Your task to perform on an android device: What is the news today? Image 0: 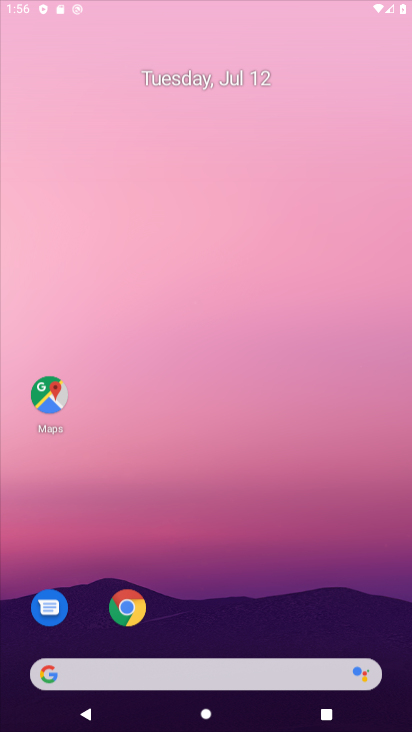
Step 0: press home button
Your task to perform on an android device: What is the news today? Image 1: 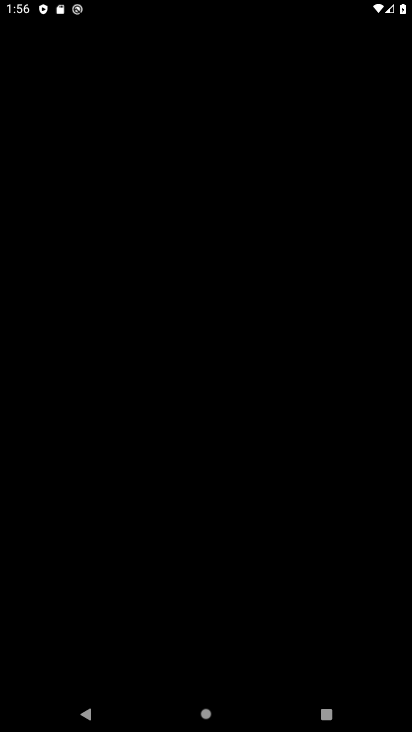
Step 1: press home button
Your task to perform on an android device: What is the news today? Image 2: 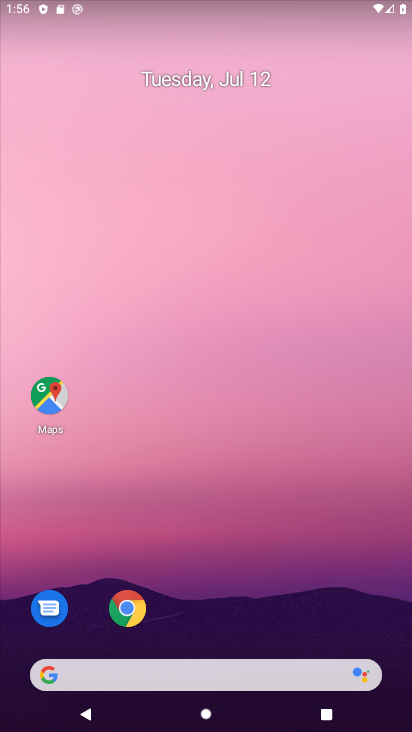
Step 2: drag from (282, 527) to (254, 19)
Your task to perform on an android device: What is the news today? Image 3: 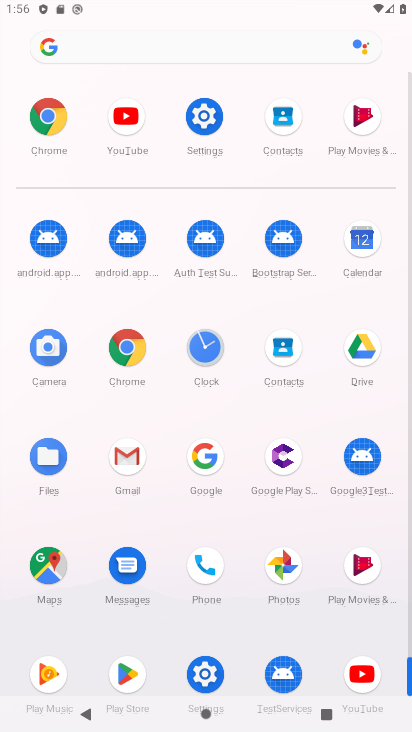
Step 3: click (125, 352)
Your task to perform on an android device: What is the news today? Image 4: 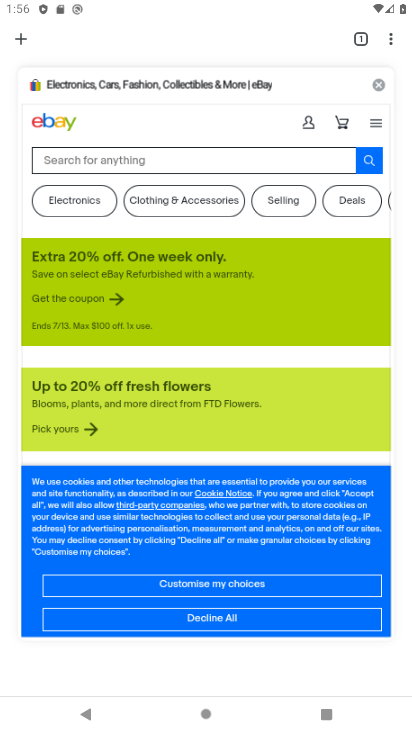
Step 4: drag from (189, 112) to (212, 416)
Your task to perform on an android device: What is the news today? Image 5: 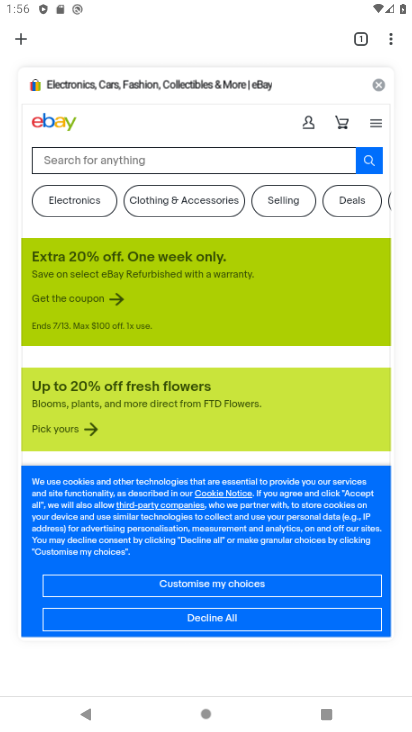
Step 5: click (309, 39)
Your task to perform on an android device: What is the news today? Image 6: 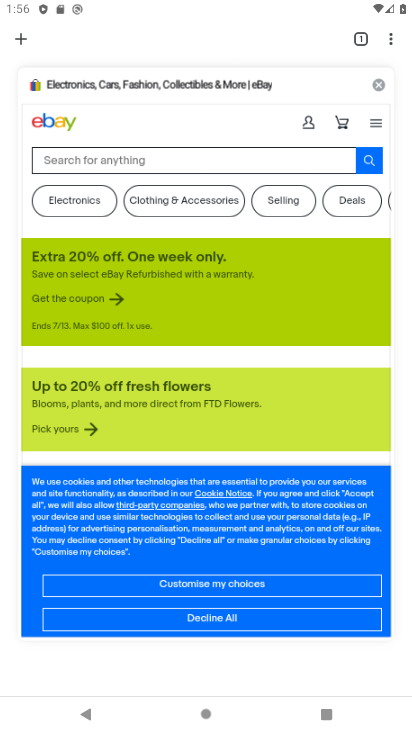
Step 6: click (330, 46)
Your task to perform on an android device: What is the news today? Image 7: 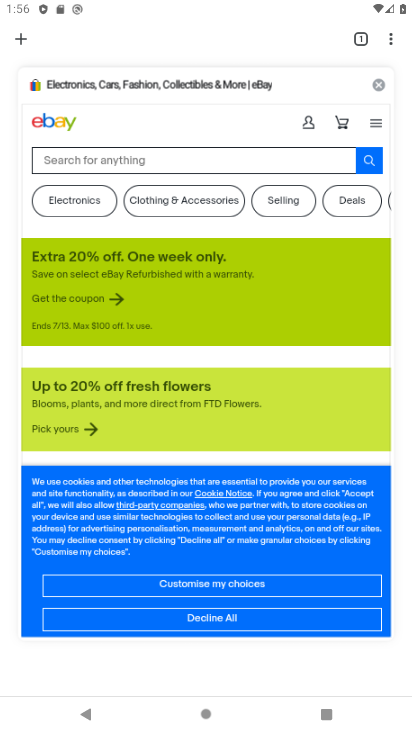
Step 7: click (296, 49)
Your task to perform on an android device: What is the news today? Image 8: 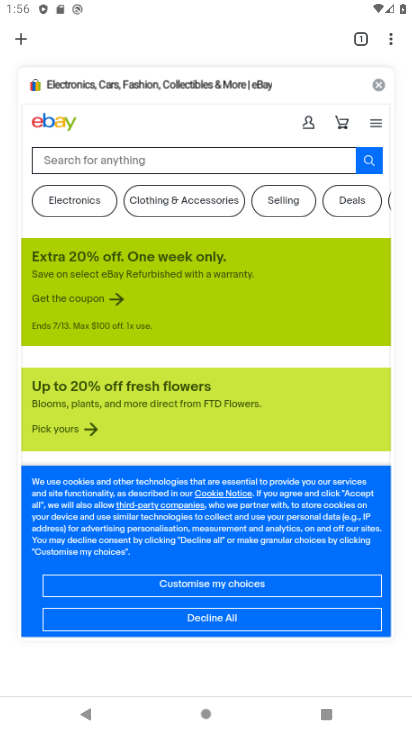
Step 8: click (227, 97)
Your task to perform on an android device: What is the news today? Image 9: 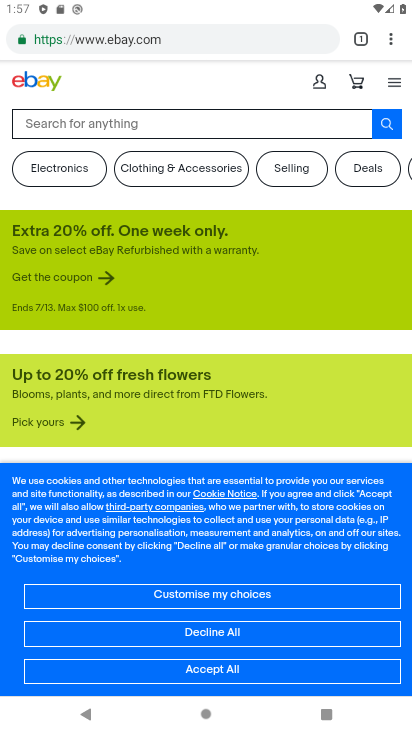
Step 9: click (273, 48)
Your task to perform on an android device: What is the news today? Image 10: 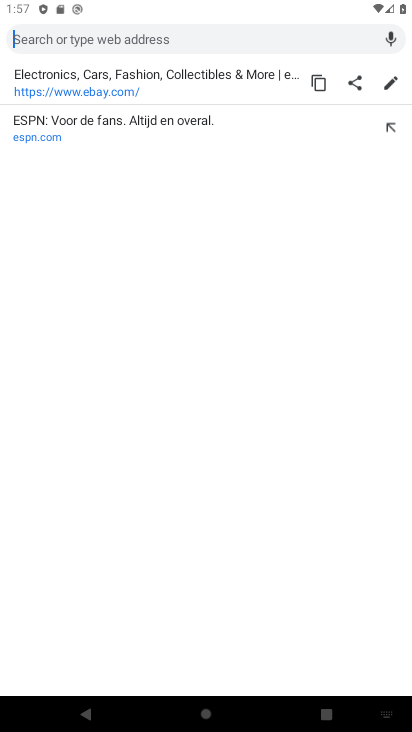
Step 10: type "news"
Your task to perform on an android device: What is the news today? Image 11: 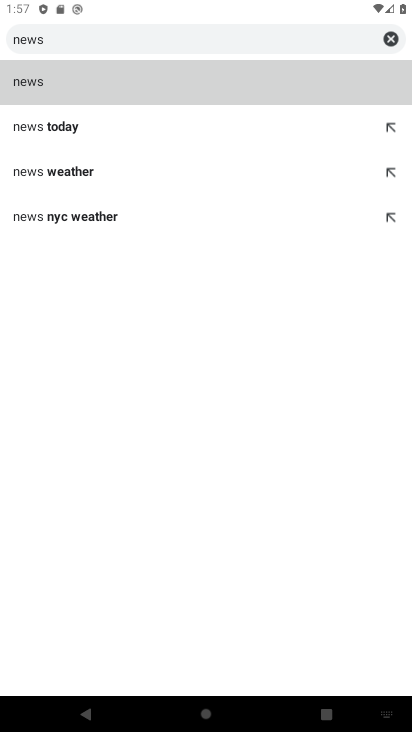
Step 11: click (65, 86)
Your task to perform on an android device: What is the news today? Image 12: 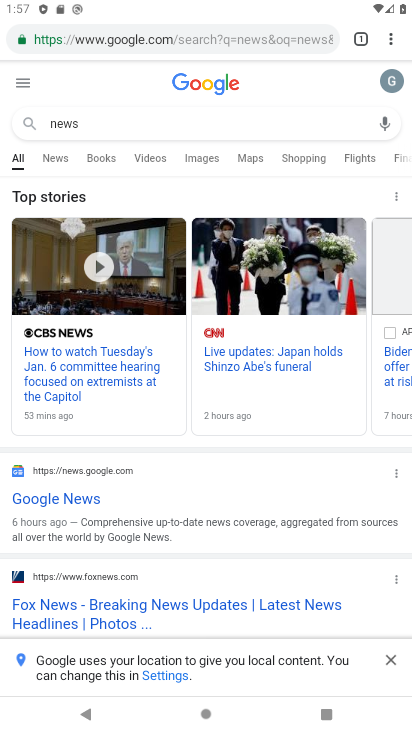
Step 12: click (73, 500)
Your task to perform on an android device: What is the news today? Image 13: 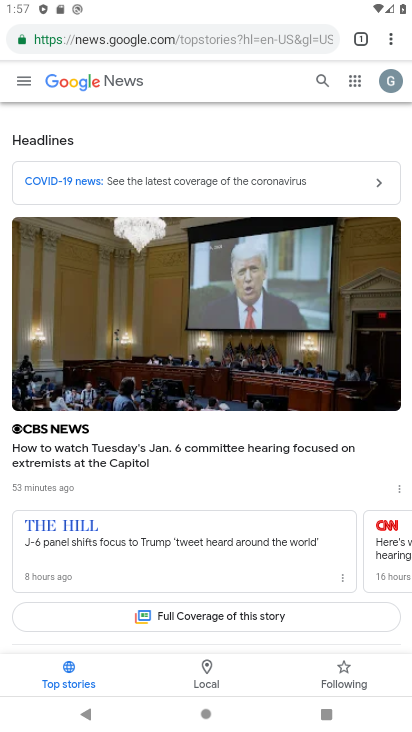
Step 13: task complete